Your task to perform on an android device: allow notifications from all sites in the chrome app Image 0: 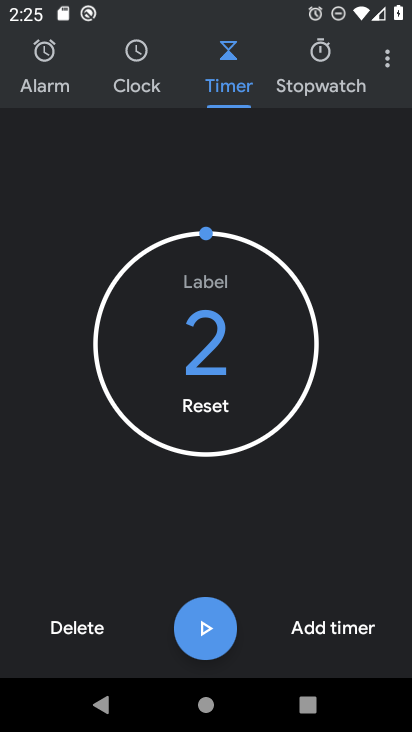
Step 0: press home button
Your task to perform on an android device: allow notifications from all sites in the chrome app Image 1: 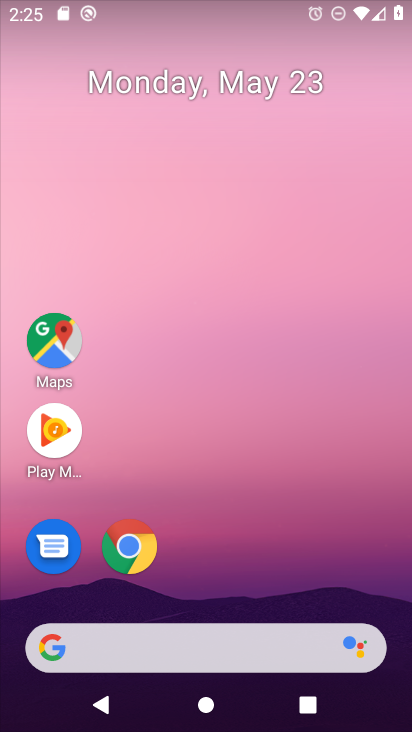
Step 1: drag from (229, 662) to (214, 161)
Your task to perform on an android device: allow notifications from all sites in the chrome app Image 2: 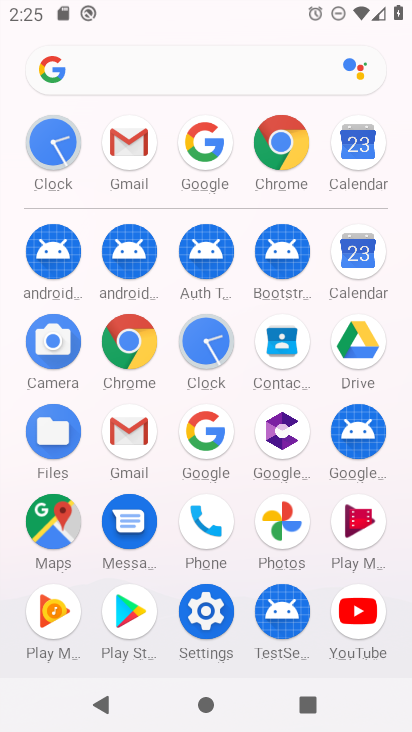
Step 2: click (277, 152)
Your task to perform on an android device: allow notifications from all sites in the chrome app Image 3: 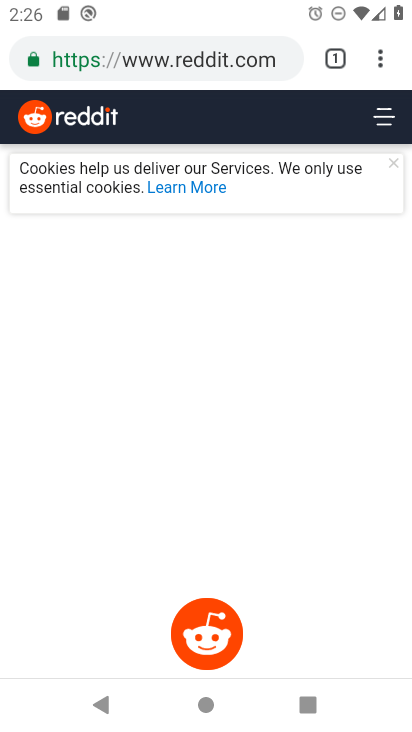
Step 3: click (367, 59)
Your task to perform on an android device: allow notifications from all sites in the chrome app Image 4: 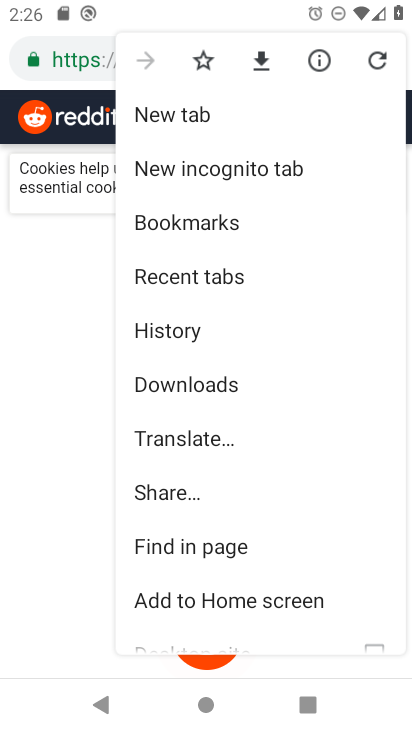
Step 4: drag from (210, 514) to (208, 297)
Your task to perform on an android device: allow notifications from all sites in the chrome app Image 5: 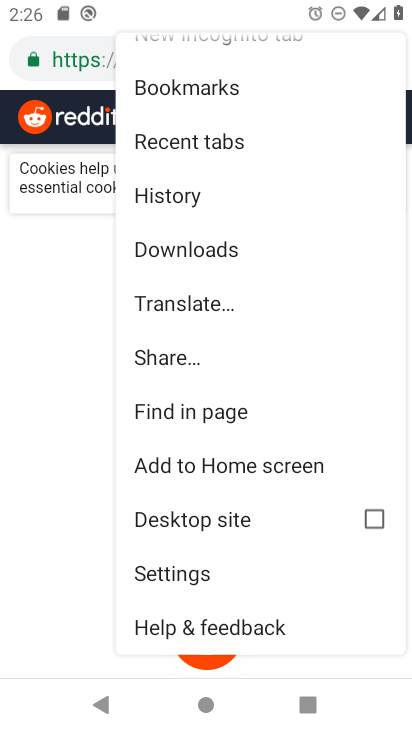
Step 5: click (192, 576)
Your task to perform on an android device: allow notifications from all sites in the chrome app Image 6: 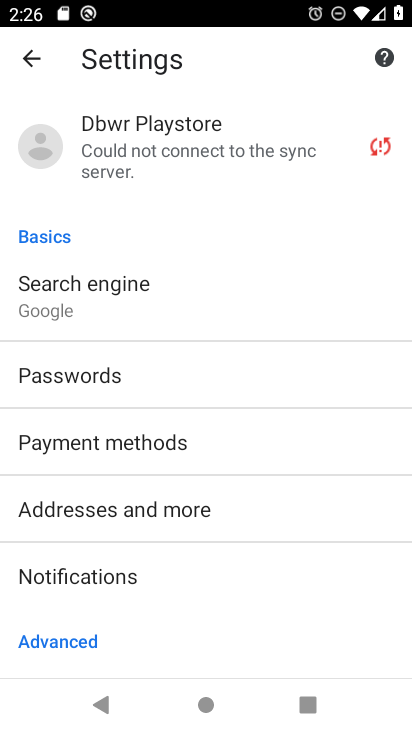
Step 6: drag from (202, 529) to (217, 270)
Your task to perform on an android device: allow notifications from all sites in the chrome app Image 7: 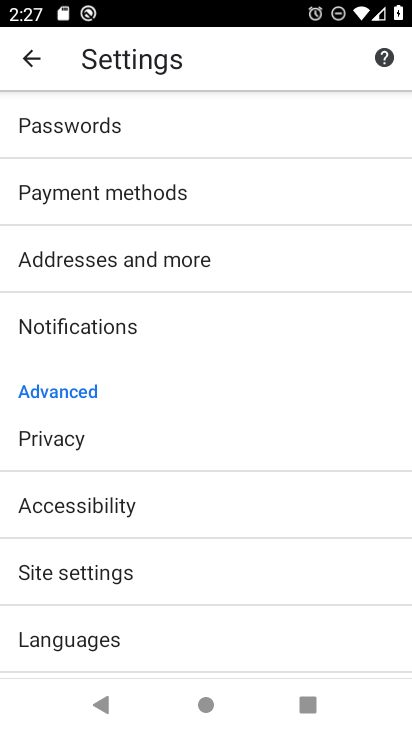
Step 7: click (135, 329)
Your task to perform on an android device: allow notifications from all sites in the chrome app Image 8: 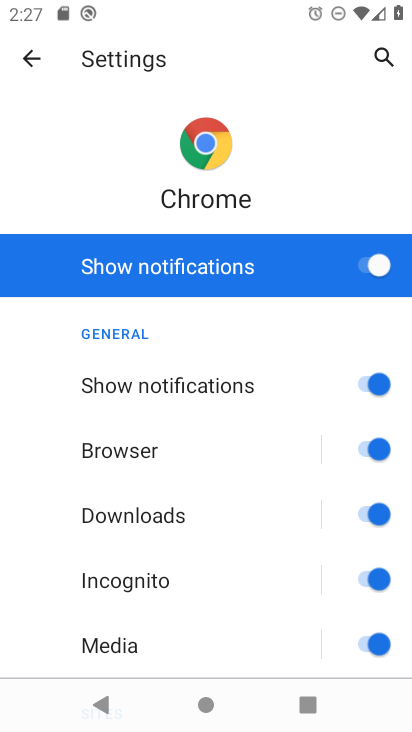
Step 8: task complete